Your task to perform on an android device: open app "Venmo" (install if not already installed), go to login, and select forgot password Image 0: 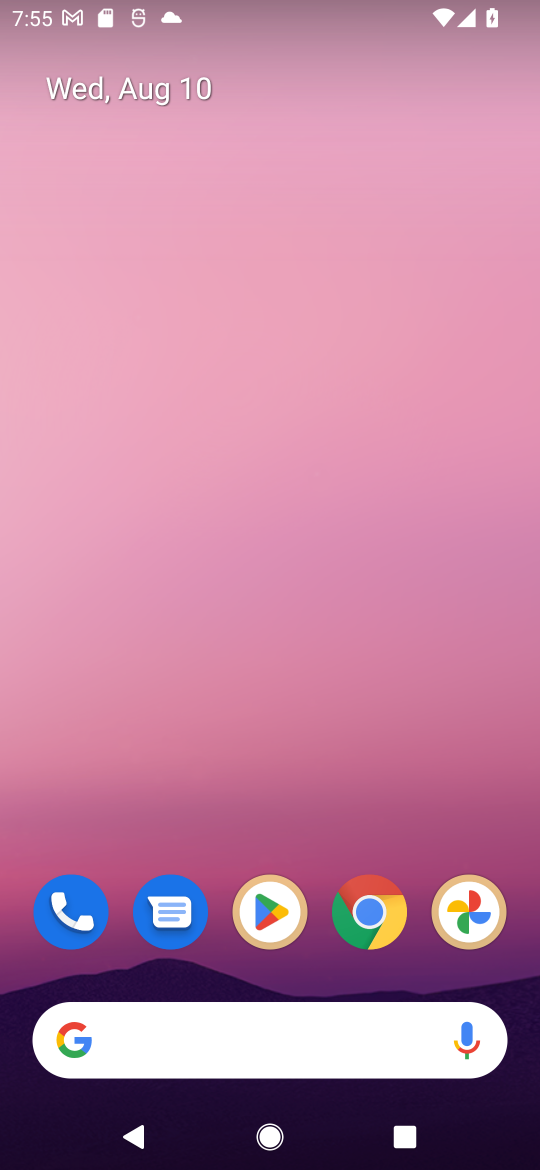
Step 0: drag from (513, 990) to (253, 14)
Your task to perform on an android device: open app "Venmo" (install if not already installed), go to login, and select forgot password Image 1: 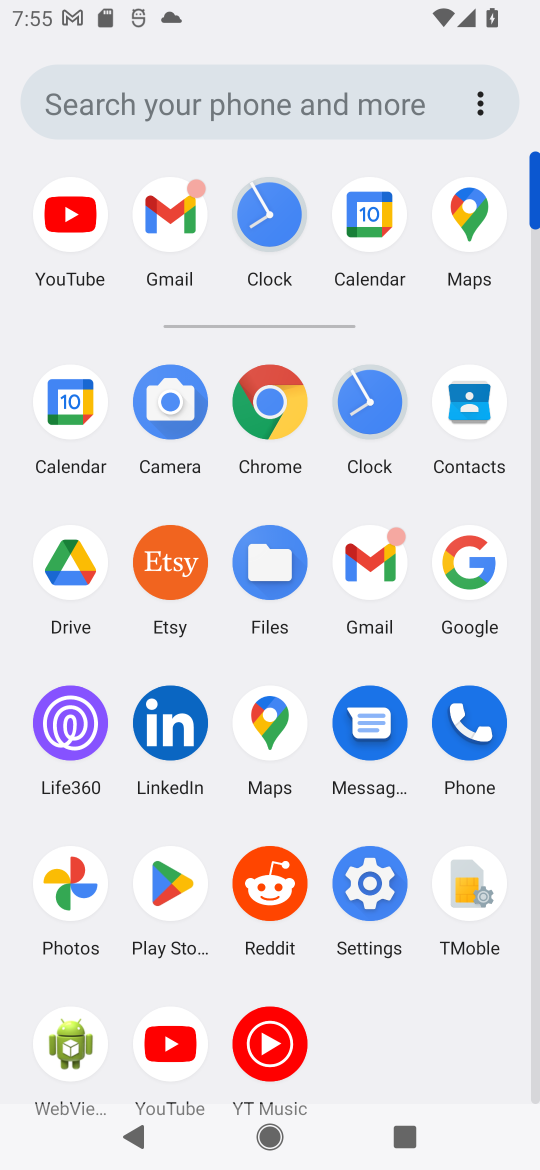
Step 1: click (165, 907)
Your task to perform on an android device: open app "Venmo" (install if not already installed), go to login, and select forgot password Image 2: 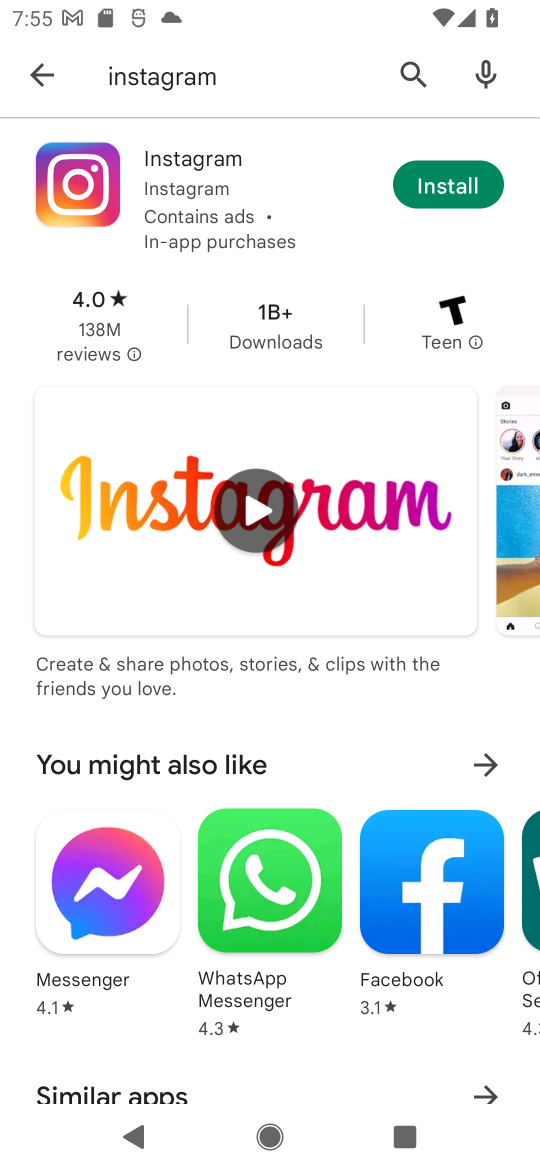
Step 2: press back button
Your task to perform on an android device: open app "Venmo" (install if not already installed), go to login, and select forgot password Image 3: 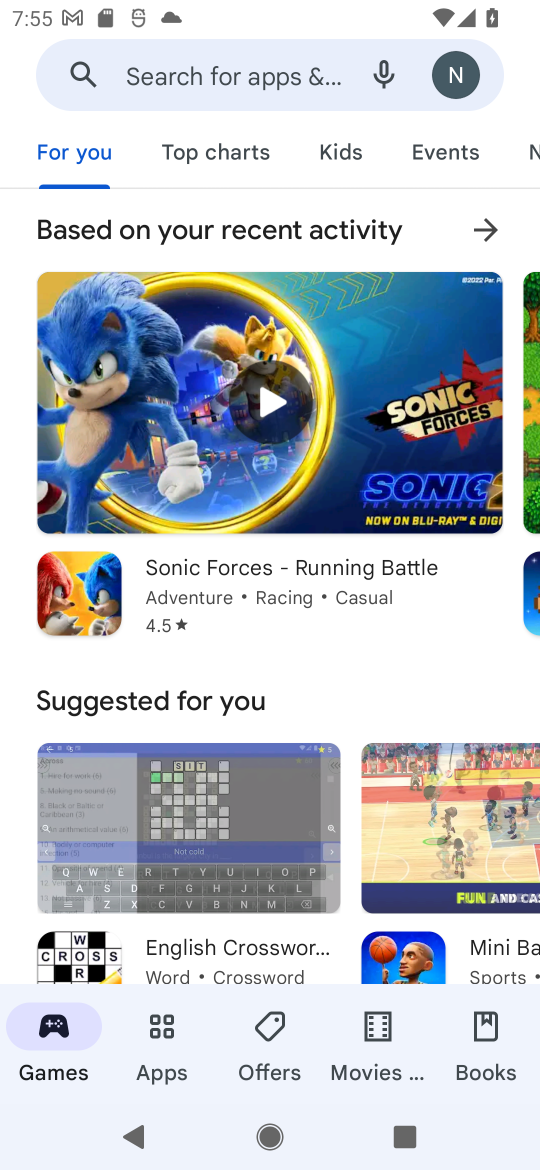
Step 3: click (210, 73)
Your task to perform on an android device: open app "Venmo" (install if not already installed), go to login, and select forgot password Image 4: 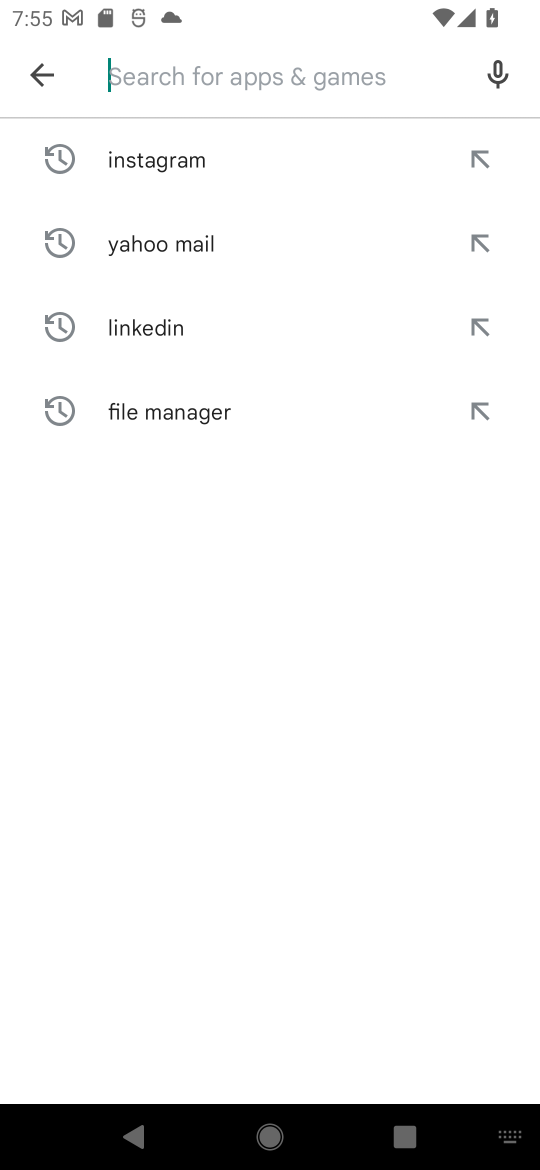
Step 4: type "Venmo"
Your task to perform on an android device: open app "Venmo" (install if not already installed), go to login, and select forgot password Image 5: 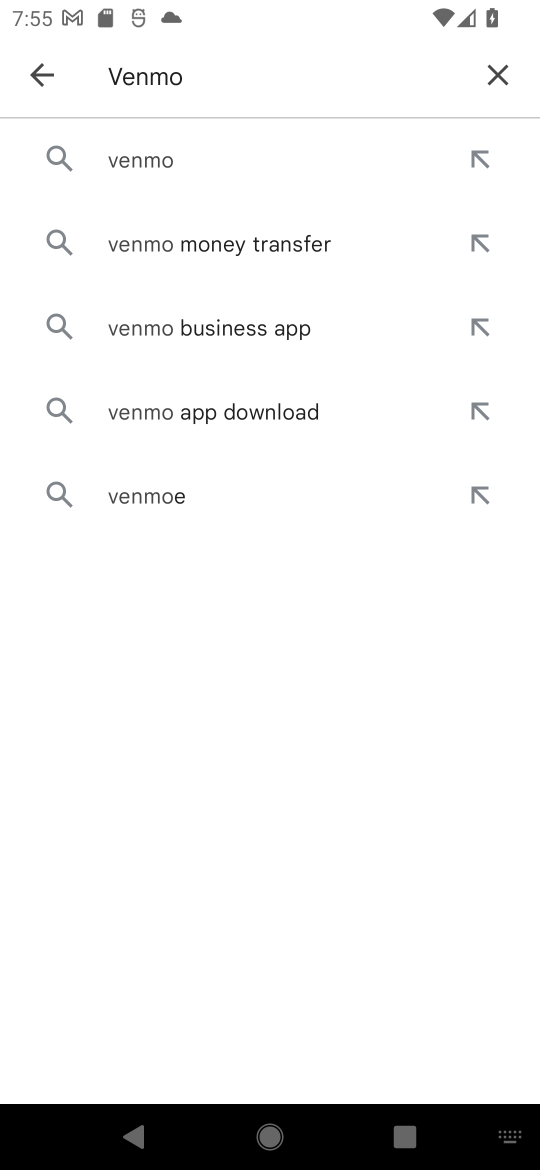
Step 5: click (123, 187)
Your task to perform on an android device: open app "Venmo" (install if not already installed), go to login, and select forgot password Image 6: 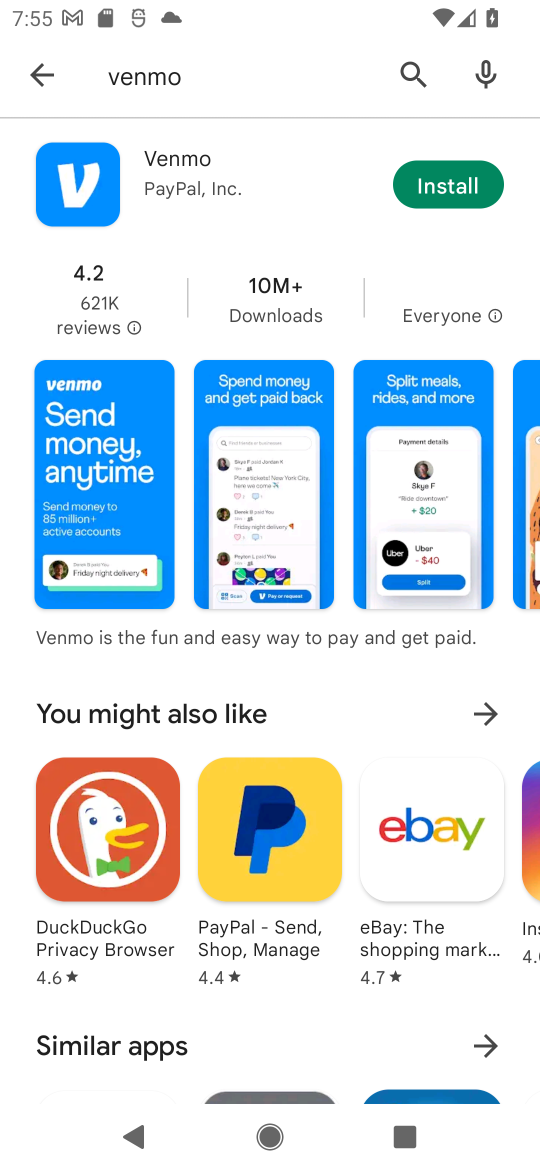
Step 6: task complete